Your task to perform on an android device: empty trash in the gmail app Image 0: 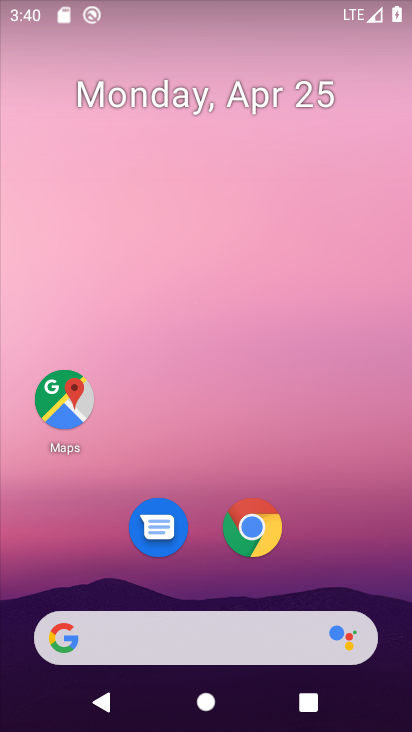
Step 0: drag from (391, 606) to (339, 130)
Your task to perform on an android device: empty trash in the gmail app Image 1: 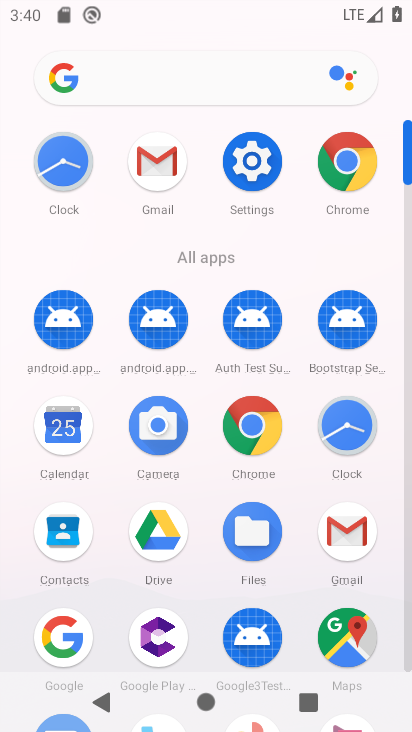
Step 1: click (408, 655)
Your task to perform on an android device: empty trash in the gmail app Image 2: 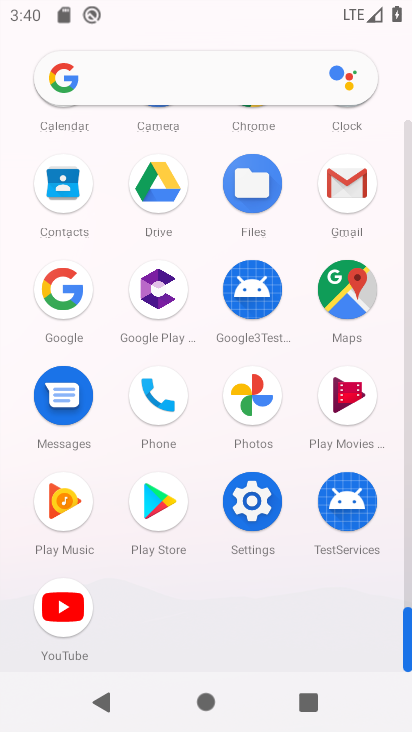
Step 2: click (343, 180)
Your task to perform on an android device: empty trash in the gmail app Image 3: 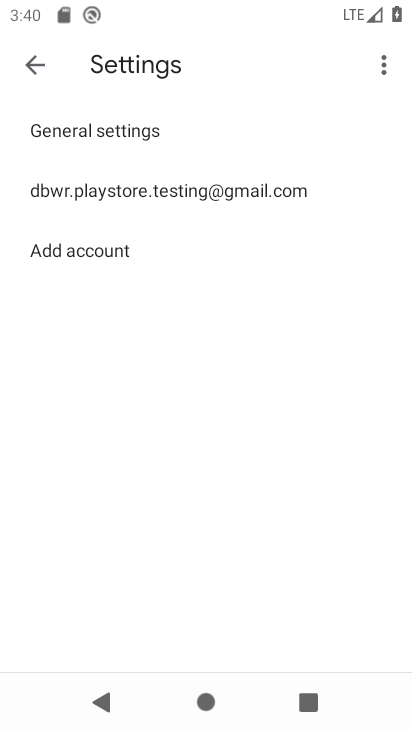
Step 3: press back button
Your task to perform on an android device: empty trash in the gmail app Image 4: 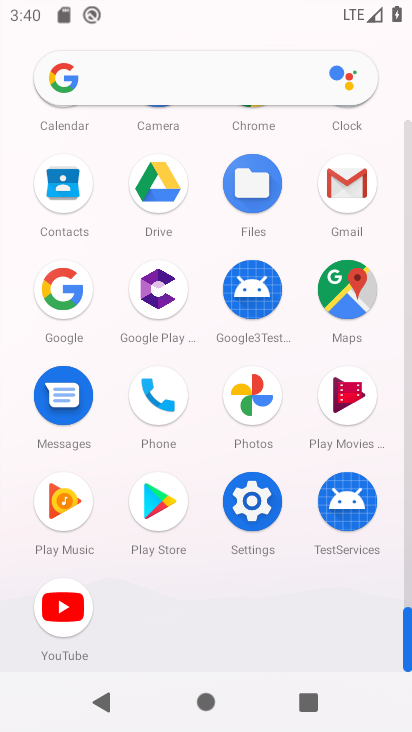
Step 4: click (348, 180)
Your task to perform on an android device: empty trash in the gmail app Image 5: 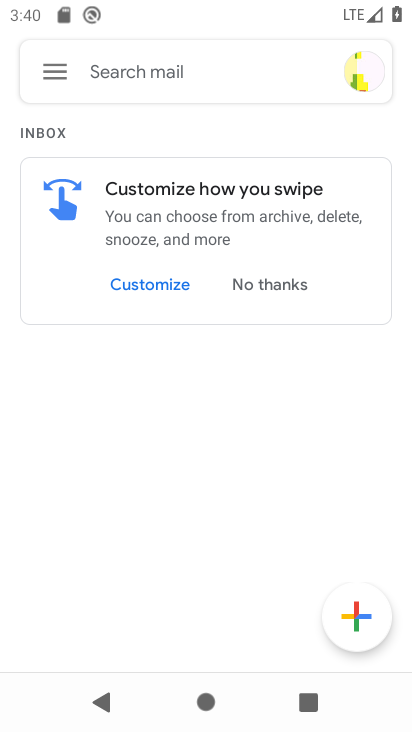
Step 5: click (59, 78)
Your task to perform on an android device: empty trash in the gmail app Image 6: 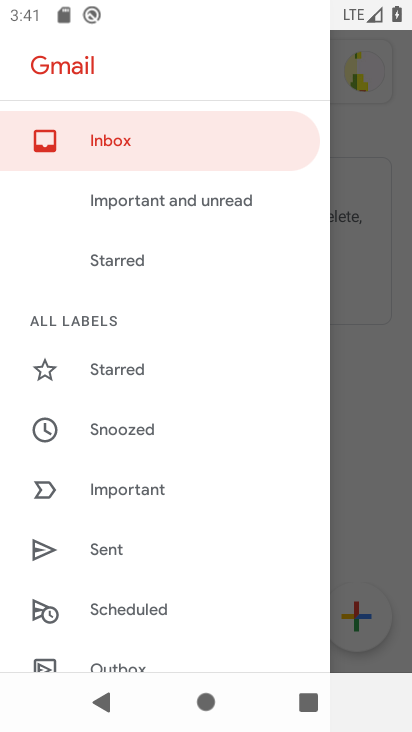
Step 6: drag from (227, 603) to (302, 154)
Your task to perform on an android device: empty trash in the gmail app Image 7: 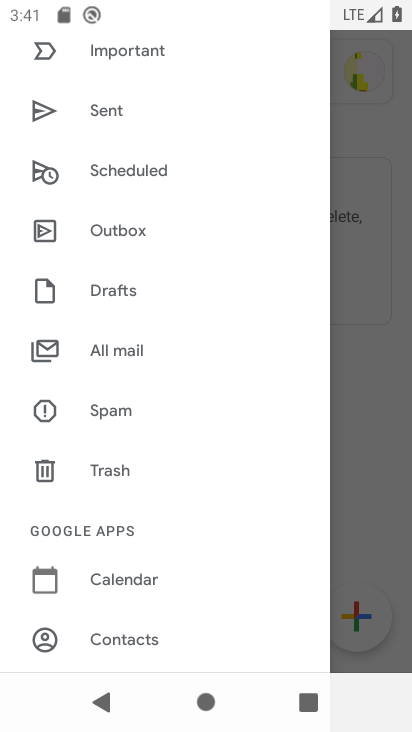
Step 7: click (103, 468)
Your task to perform on an android device: empty trash in the gmail app Image 8: 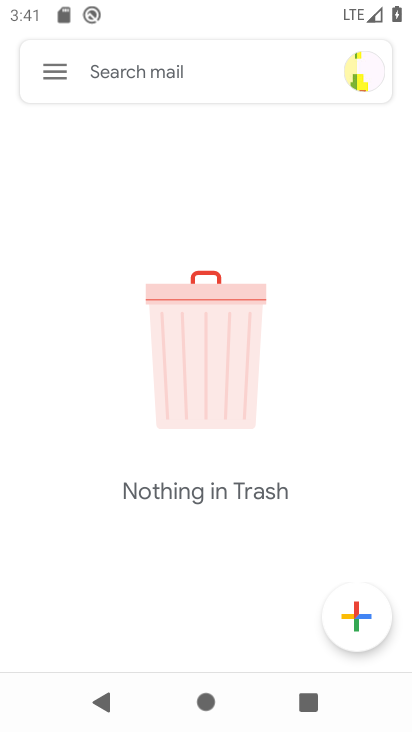
Step 8: task complete